Your task to perform on an android device: Open internet settings Image 0: 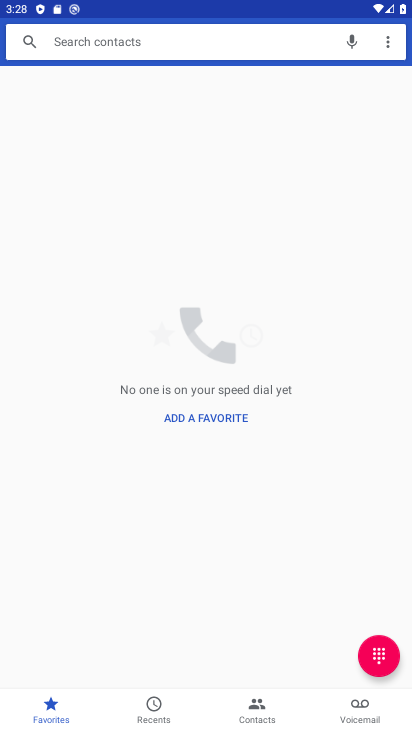
Step 0: press home button
Your task to perform on an android device: Open internet settings Image 1: 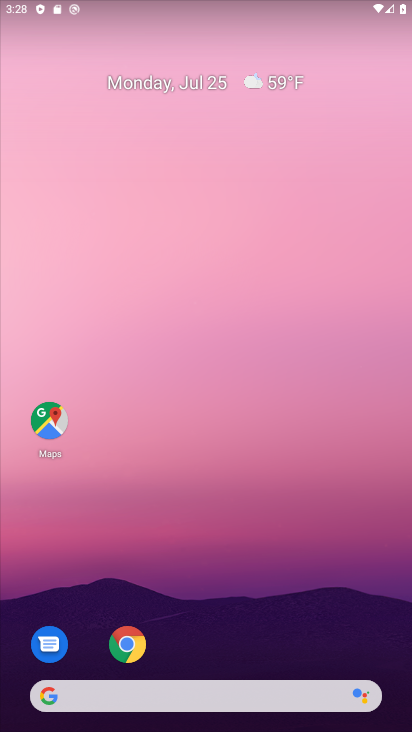
Step 1: drag from (213, 680) to (222, 52)
Your task to perform on an android device: Open internet settings Image 2: 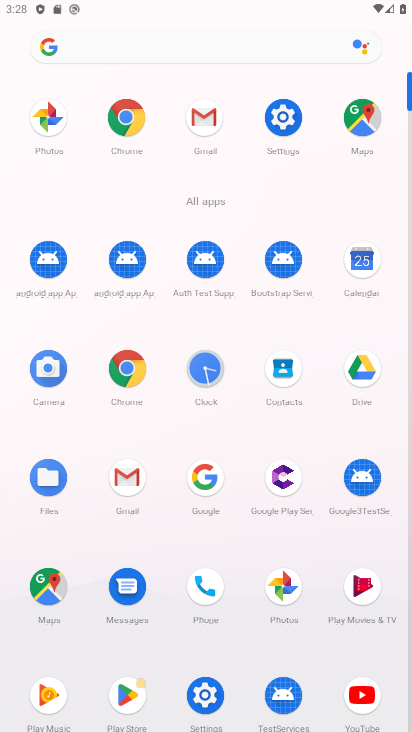
Step 2: click (277, 124)
Your task to perform on an android device: Open internet settings Image 3: 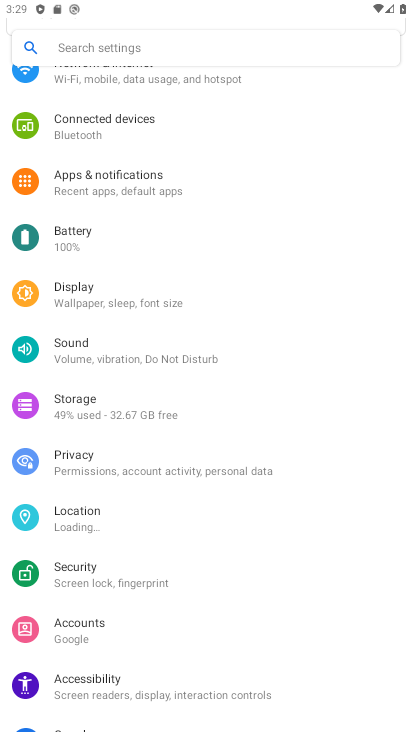
Step 3: drag from (98, 96) to (108, 477)
Your task to perform on an android device: Open internet settings Image 4: 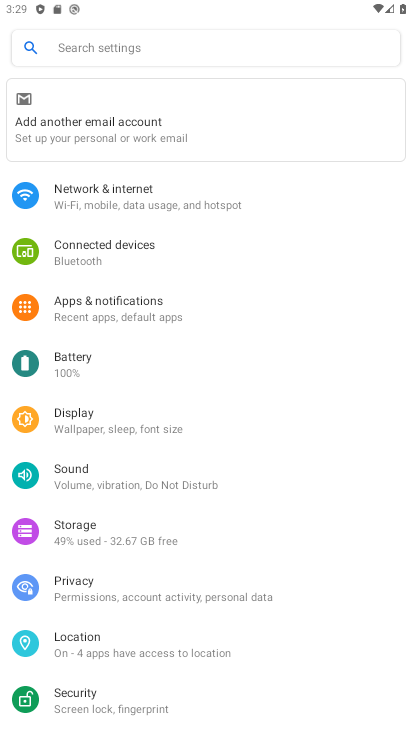
Step 4: click (112, 202)
Your task to perform on an android device: Open internet settings Image 5: 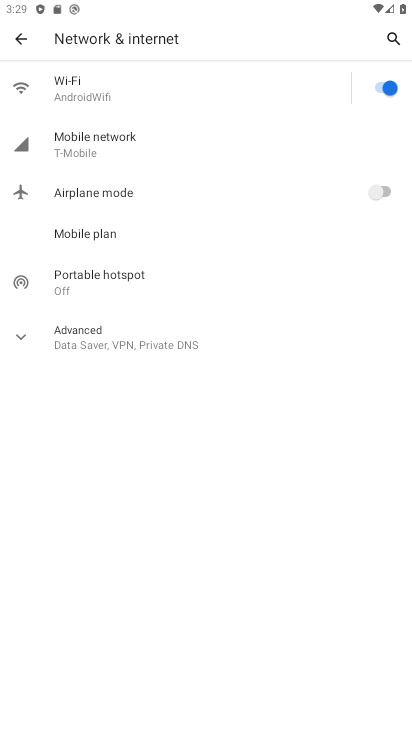
Step 5: click (109, 336)
Your task to perform on an android device: Open internet settings Image 6: 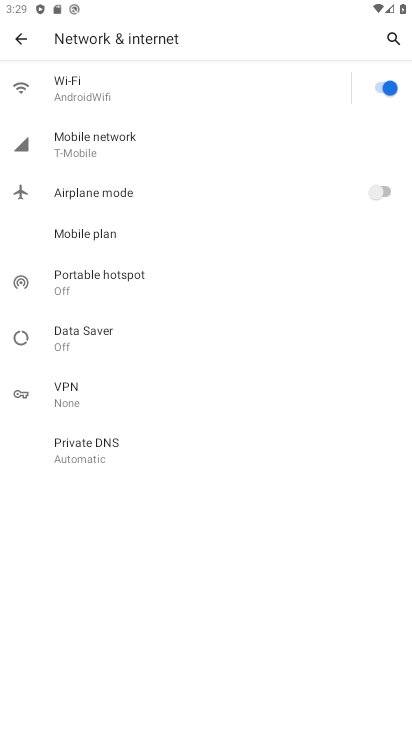
Step 6: click (122, 145)
Your task to perform on an android device: Open internet settings Image 7: 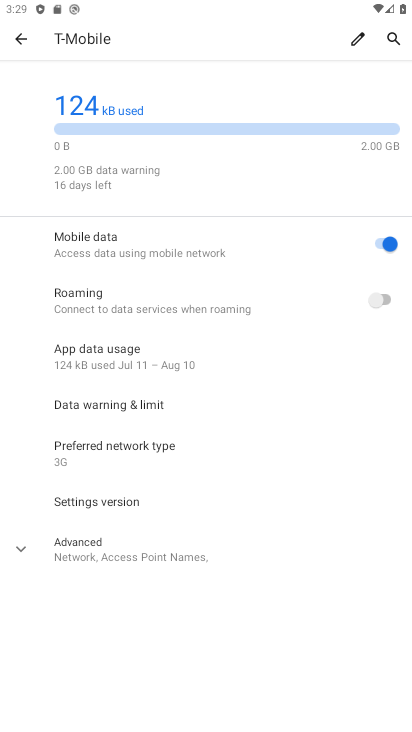
Step 7: task complete